Your task to perform on an android device: Check the weather Image 0: 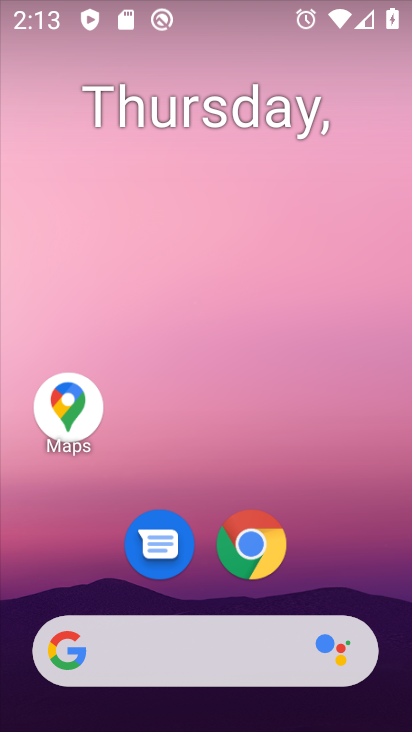
Step 0: click (258, 536)
Your task to perform on an android device: Check the weather Image 1: 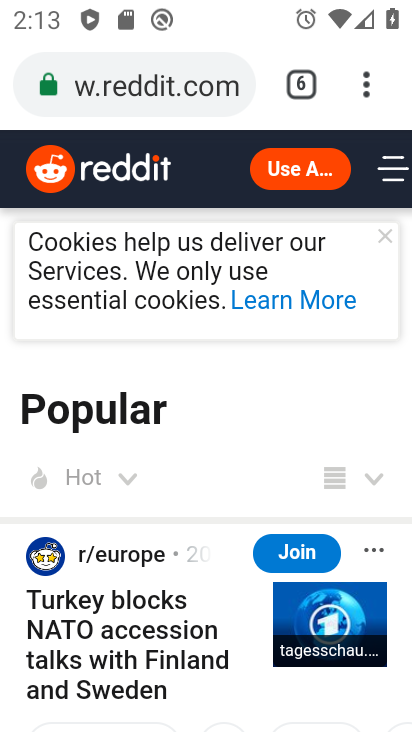
Step 1: click (304, 83)
Your task to perform on an android device: Check the weather Image 2: 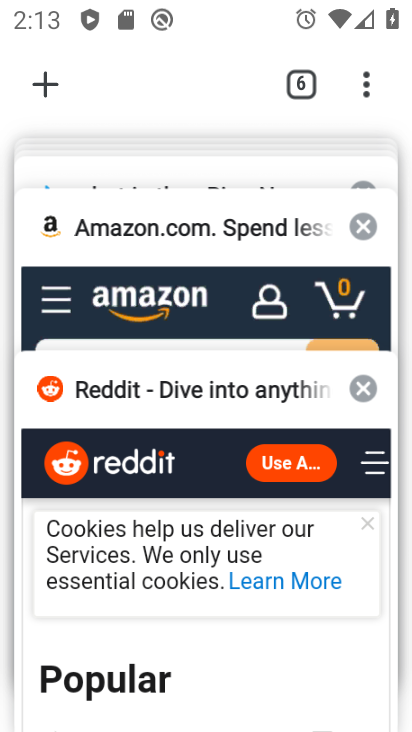
Step 2: drag from (159, 208) to (136, 572)
Your task to perform on an android device: Check the weather Image 3: 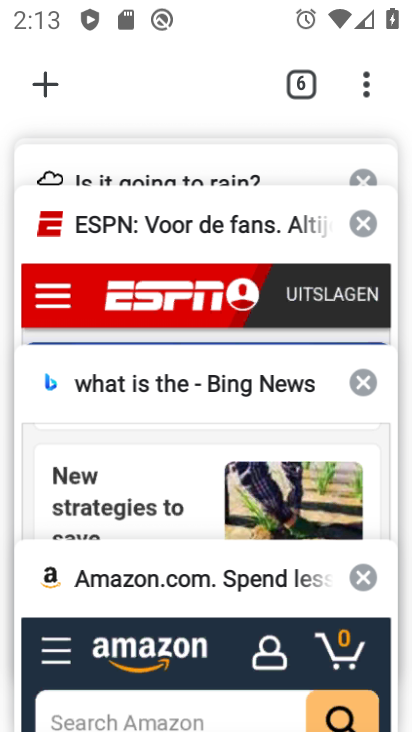
Step 3: drag from (164, 215) to (136, 595)
Your task to perform on an android device: Check the weather Image 4: 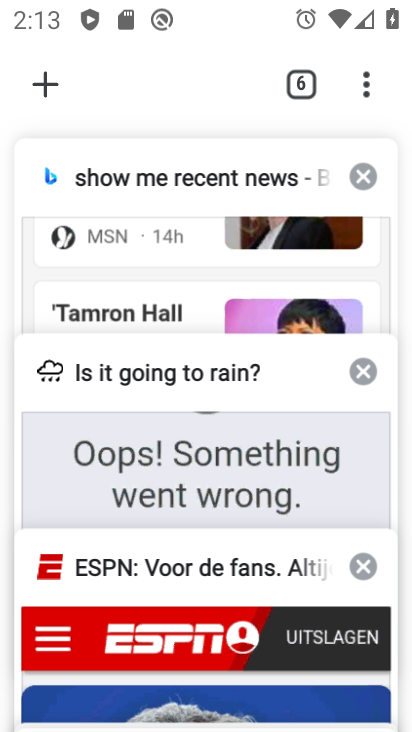
Step 4: click (54, 78)
Your task to perform on an android device: Check the weather Image 5: 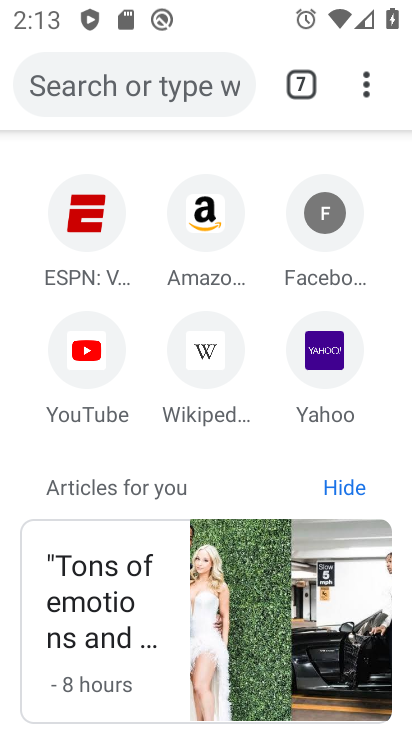
Step 5: click (165, 81)
Your task to perform on an android device: Check the weather Image 6: 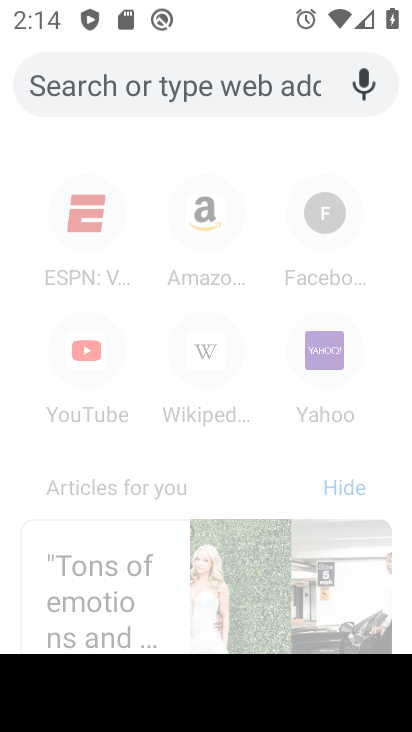
Step 6: type "check the weather"
Your task to perform on an android device: Check the weather Image 7: 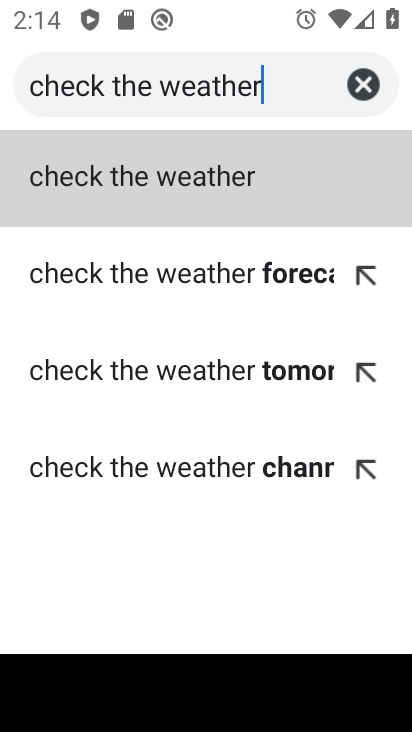
Step 7: click (143, 158)
Your task to perform on an android device: Check the weather Image 8: 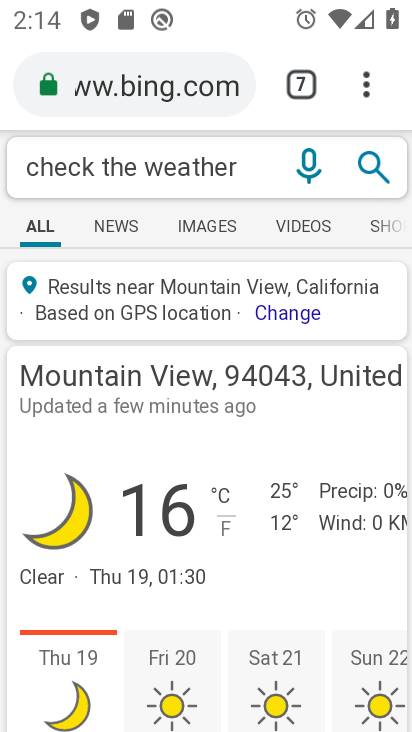
Step 8: task complete